Your task to perform on an android device: read, delete, or share a saved page in the chrome app Image 0: 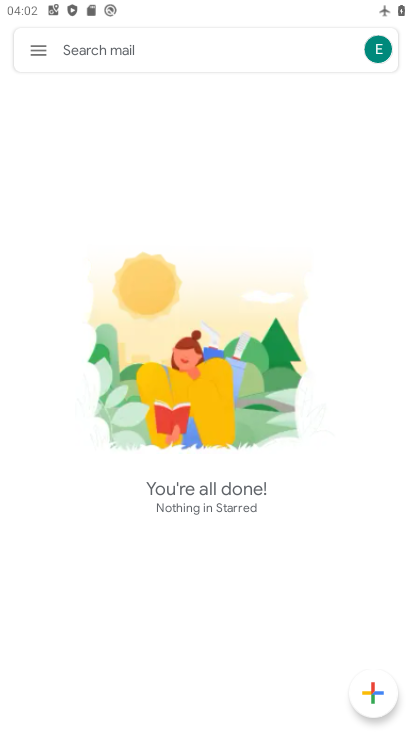
Step 0: press home button
Your task to perform on an android device: read, delete, or share a saved page in the chrome app Image 1: 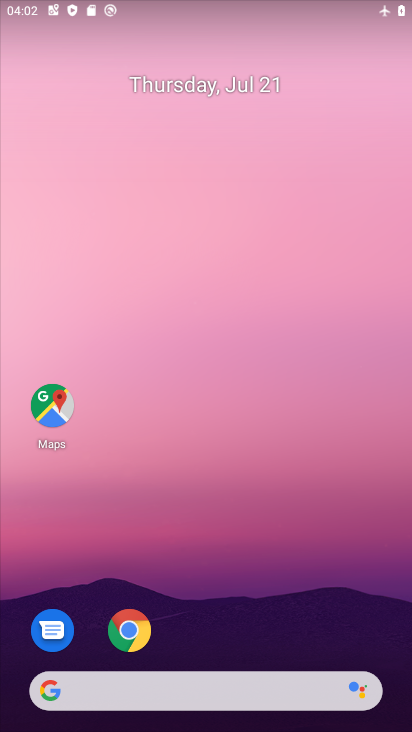
Step 1: click (136, 632)
Your task to perform on an android device: read, delete, or share a saved page in the chrome app Image 2: 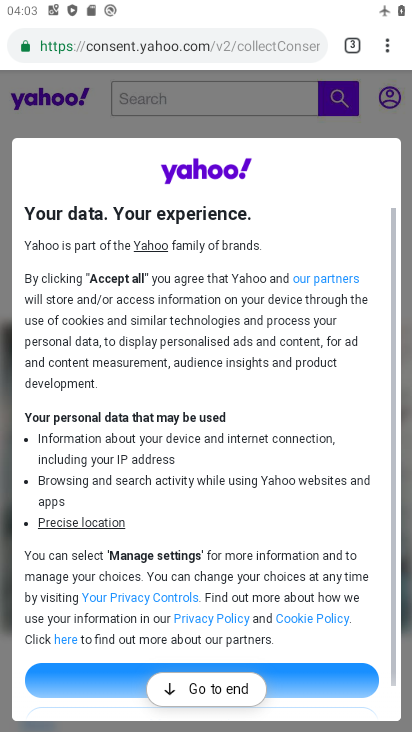
Step 2: click (394, 47)
Your task to perform on an android device: read, delete, or share a saved page in the chrome app Image 3: 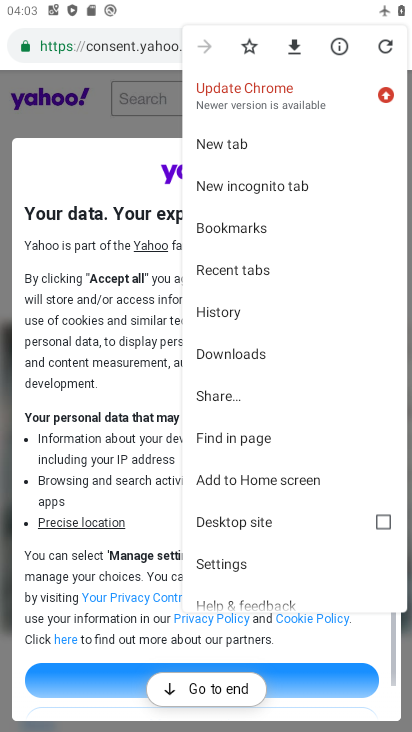
Step 3: click (252, 360)
Your task to perform on an android device: read, delete, or share a saved page in the chrome app Image 4: 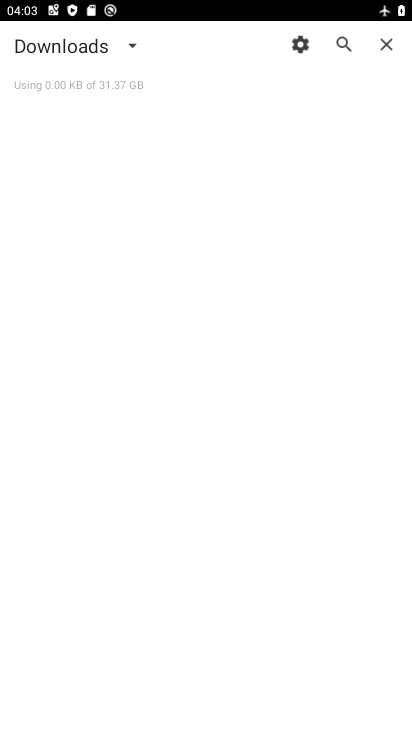
Step 4: task complete